Your task to perform on an android device: see creations saved in the google photos Image 0: 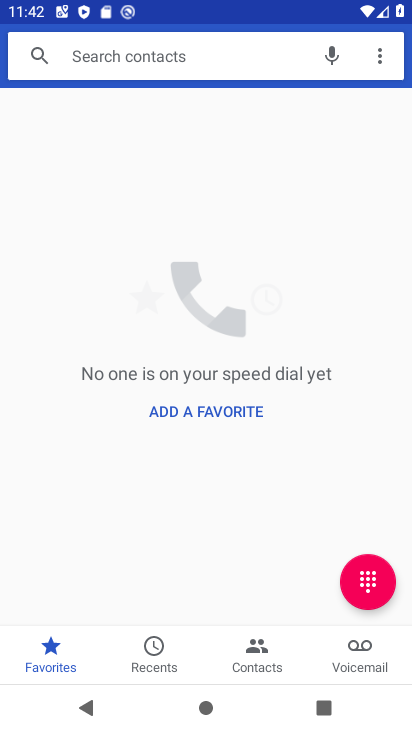
Step 0: press home button
Your task to perform on an android device: see creations saved in the google photos Image 1: 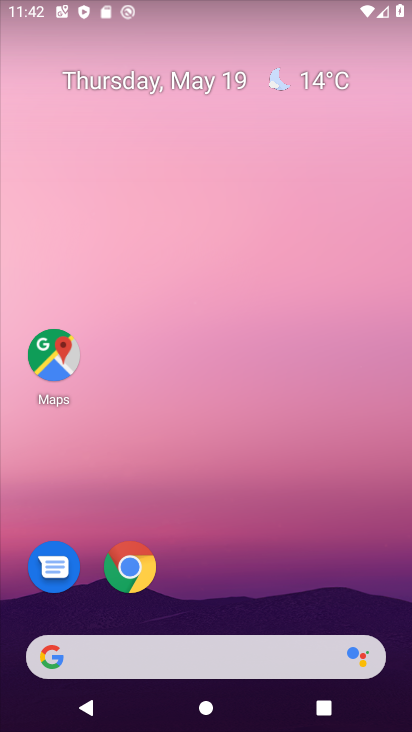
Step 1: drag from (226, 427) to (184, 123)
Your task to perform on an android device: see creations saved in the google photos Image 2: 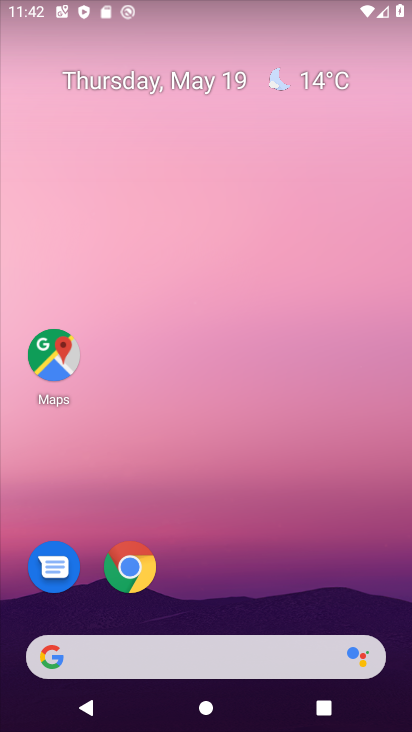
Step 2: drag from (263, 543) to (276, 129)
Your task to perform on an android device: see creations saved in the google photos Image 3: 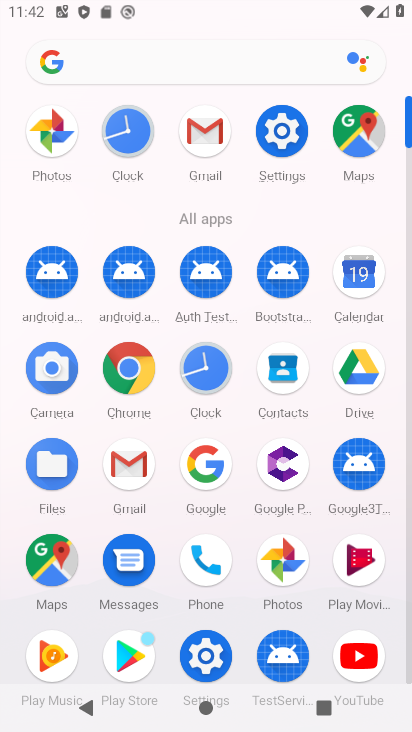
Step 3: click (40, 139)
Your task to perform on an android device: see creations saved in the google photos Image 4: 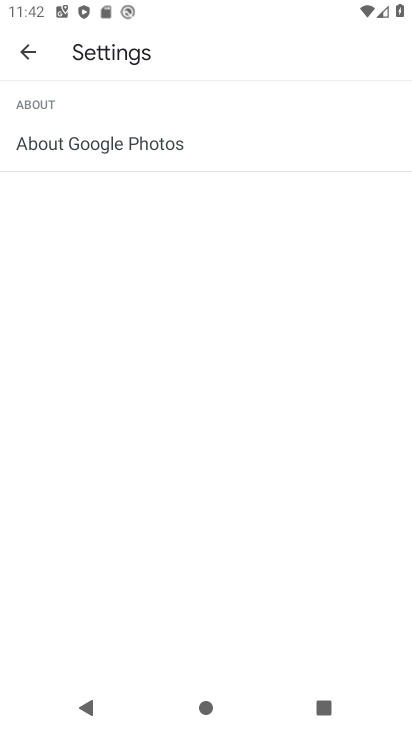
Step 4: click (35, 57)
Your task to perform on an android device: see creations saved in the google photos Image 5: 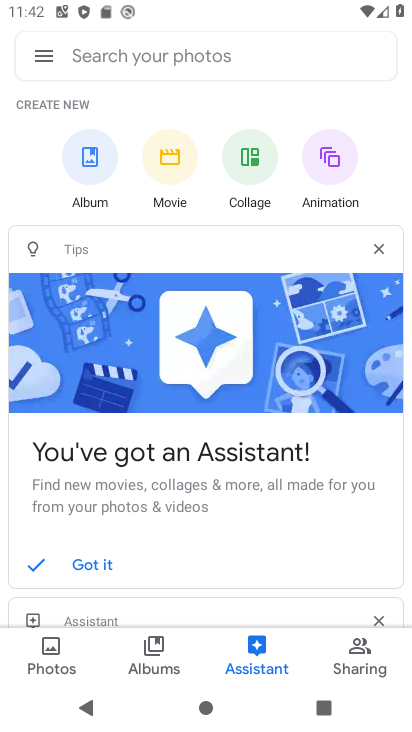
Step 5: click (147, 637)
Your task to perform on an android device: see creations saved in the google photos Image 6: 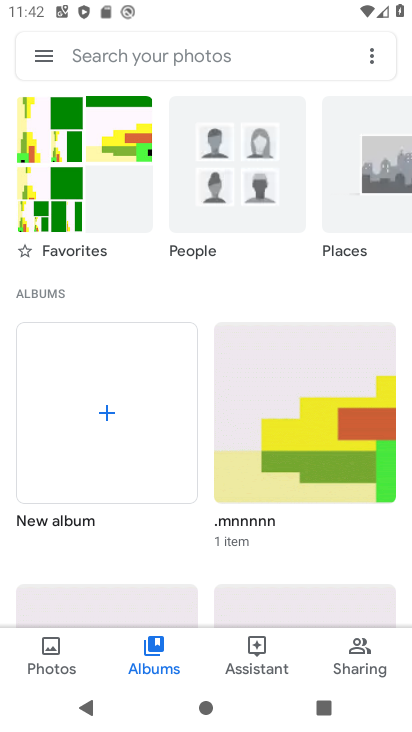
Step 6: task complete